Your task to perform on an android device: toggle show notifications on the lock screen Image 0: 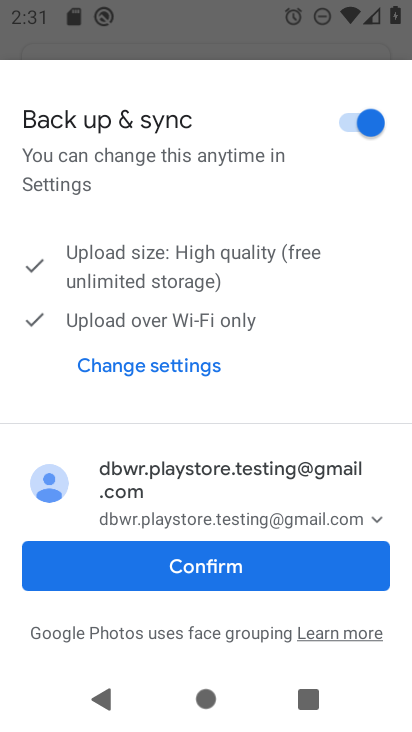
Step 0: press home button
Your task to perform on an android device: toggle show notifications on the lock screen Image 1: 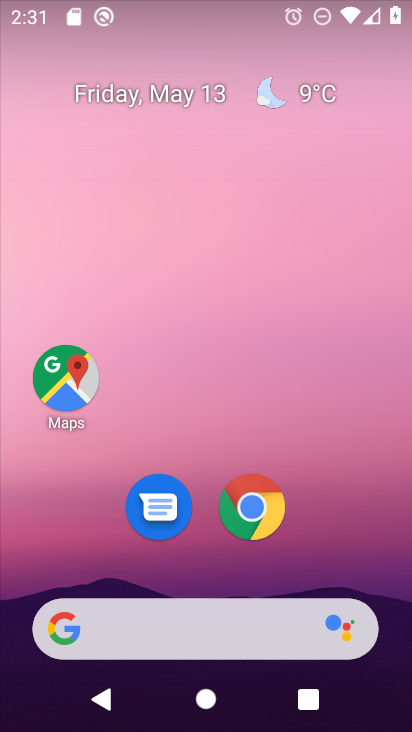
Step 1: drag from (377, 496) to (340, 32)
Your task to perform on an android device: toggle show notifications on the lock screen Image 2: 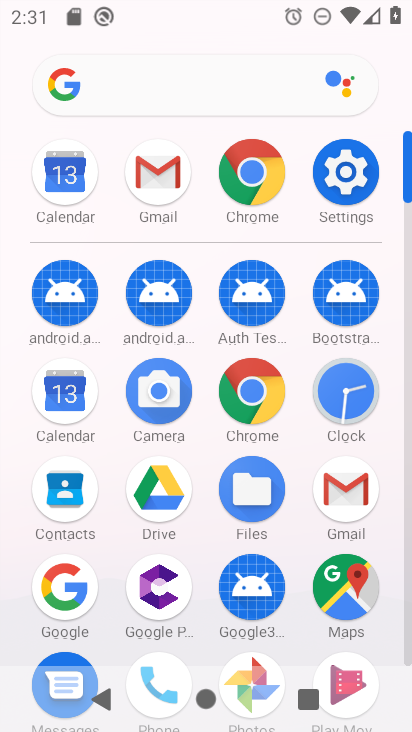
Step 2: click (359, 162)
Your task to perform on an android device: toggle show notifications on the lock screen Image 3: 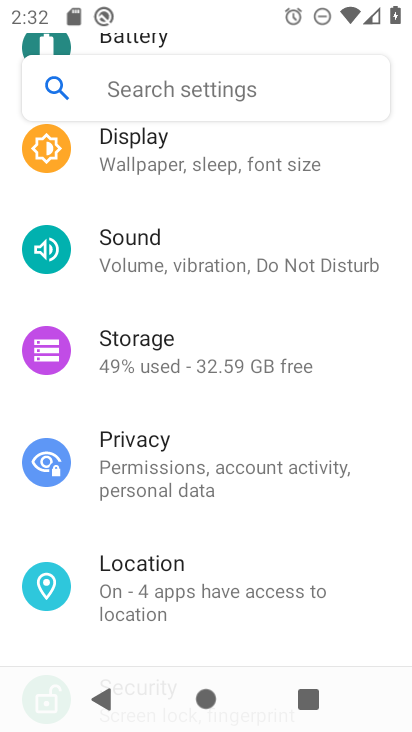
Step 3: drag from (353, 155) to (354, 551)
Your task to perform on an android device: toggle show notifications on the lock screen Image 4: 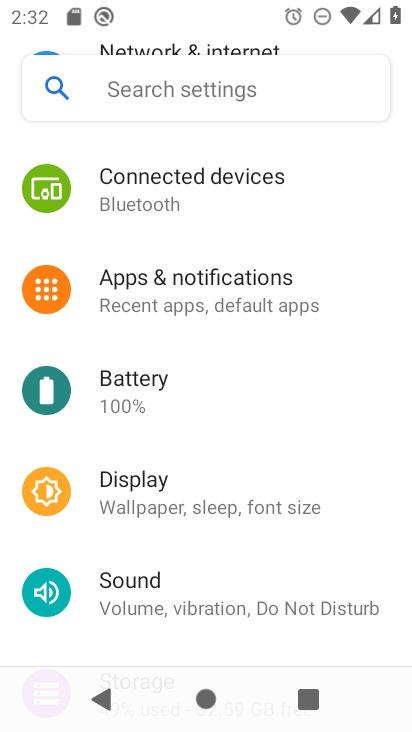
Step 4: click (256, 302)
Your task to perform on an android device: toggle show notifications on the lock screen Image 5: 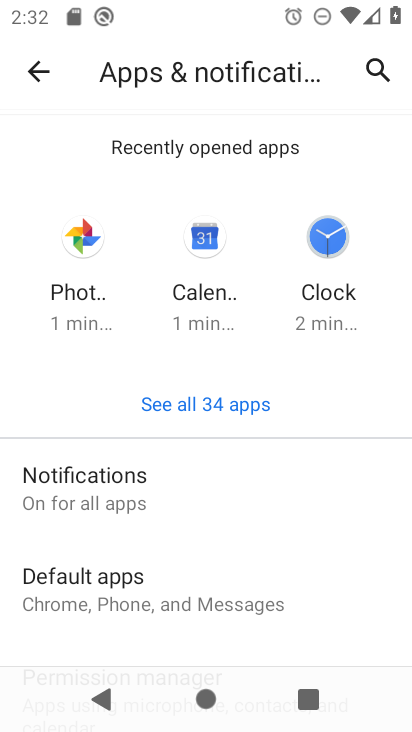
Step 5: click (83, 484)
Your task to perform on an android device: toggle show notifications on the lock screen Image 6: 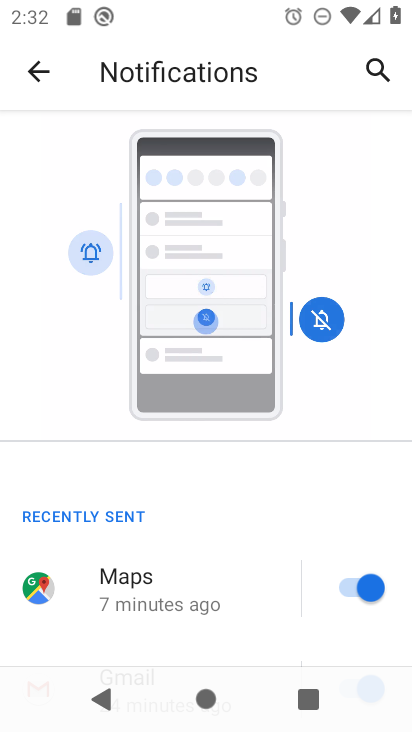
Step 6: drag from (154, 539) to (53, 134)
Your task to perform on an android device: toggle show notifications on the lock screen Image 7: 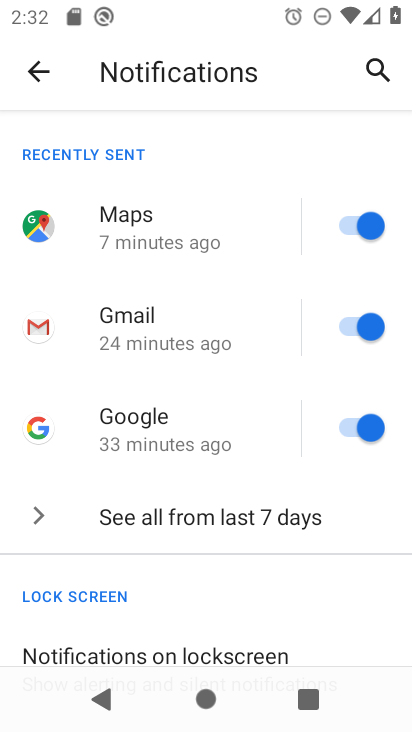
Step 7: drag from (214, 496) to (113, 123)
Your task to perform on an android device: toggle show notifications on the lock screen Image 8: 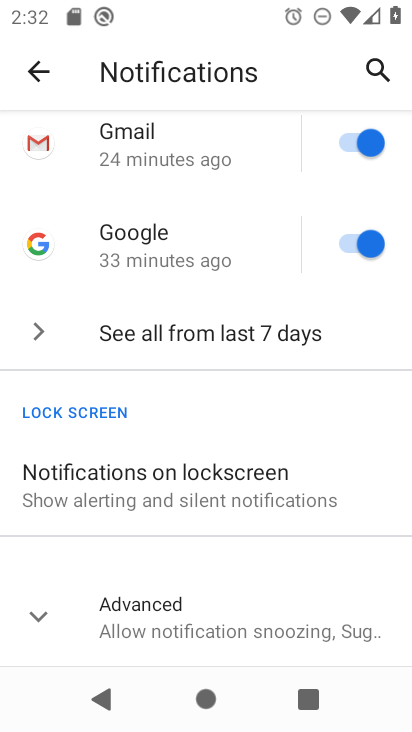
Step 8: click (138, 500)
Your task to perform on an android device: toggle show notifications on the lock screen Image 9: 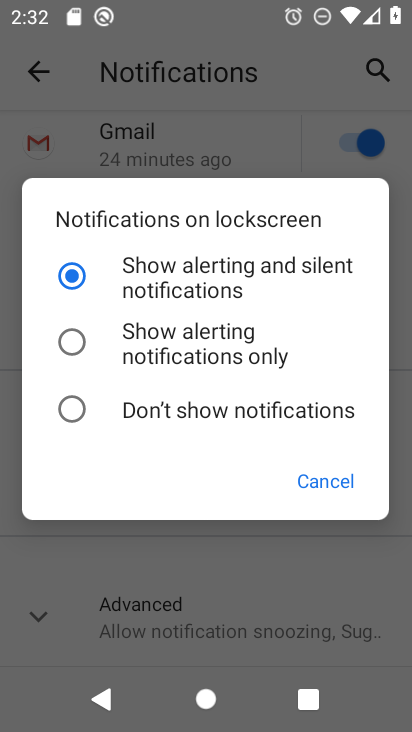
Step 9: click (73, 351)
Your task to perform on an android device: toggle show notifications on the lock screen Image 10: 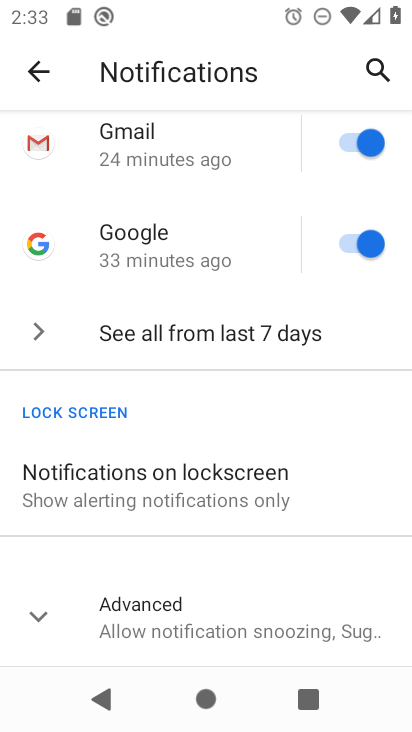
Step 10: task complete